Your task to perform on an android device: allow cookies in the chrome app Image 0: 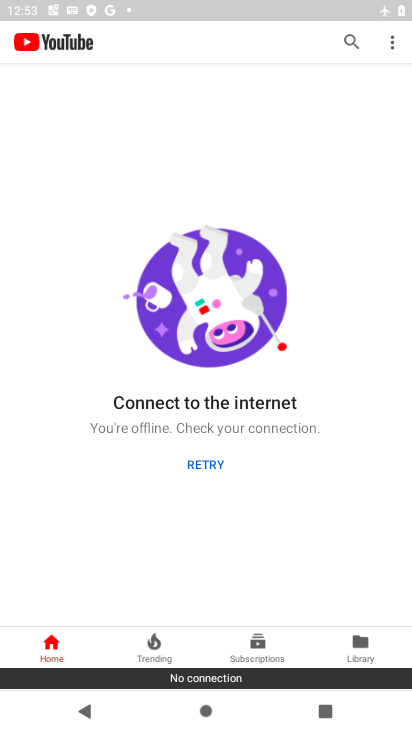
Step 0: press home button
Your task to perform on an android device: allow cookies in the chrome app Image 1: 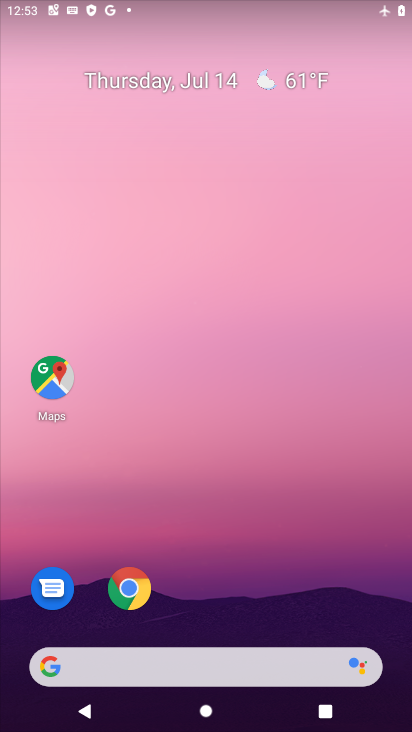
Step 1: click (127, 593)
Your task to perform on an android device: allow cookies in the chrome app Image 2: 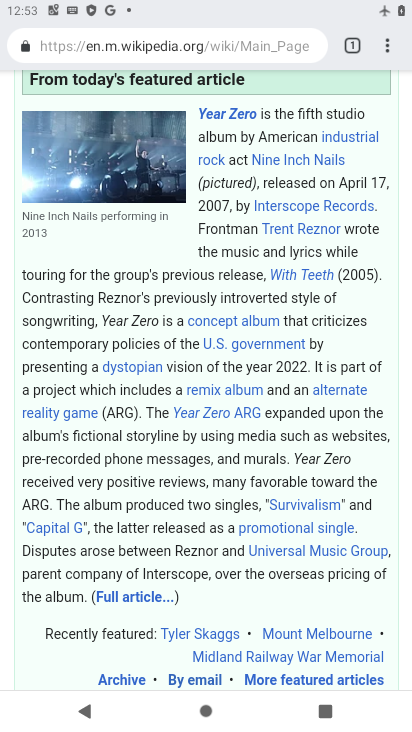
Step 2: click (390, 58)
Your task to perform on an android device: allow cookies in the chrome app Image 3: 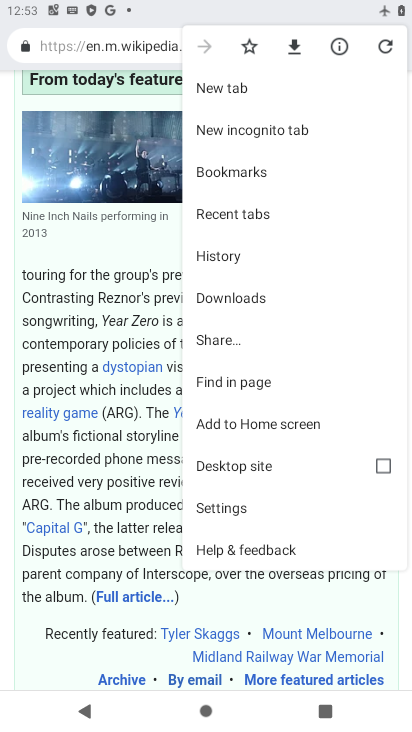
Step 3: click (229, 512)
Your task to perform on an android device: allow cookies in the chrome app Image 4: 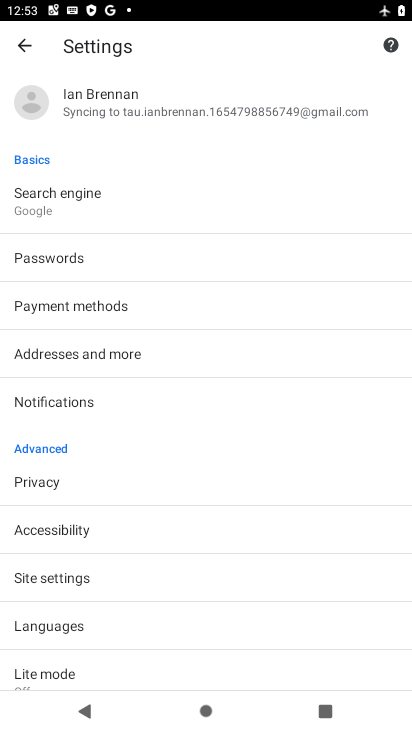
Step 4: click (88, 578)
Your task to perform on an android device: allow cookies in the chrome app Image 5: 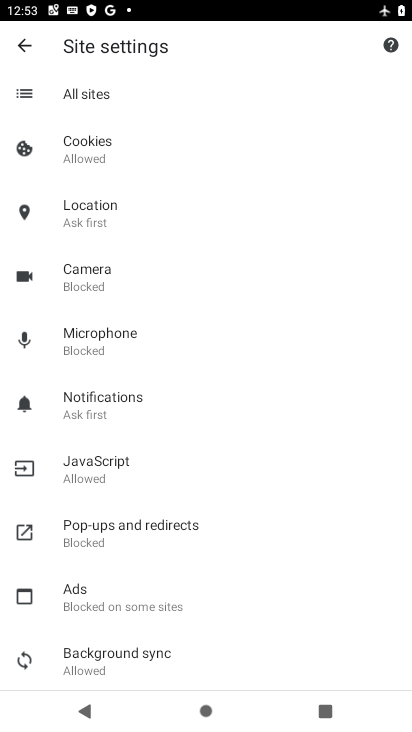
Step 5: click (111, 153)
Your task to perform on an android device: allow cookies in the chrome app Image 6: 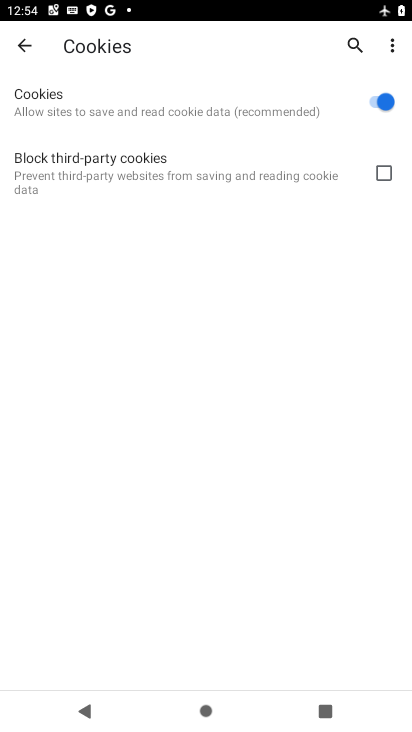
Step 6: task complete